Your task to perform on an android device: change keyboard looks Image 0: 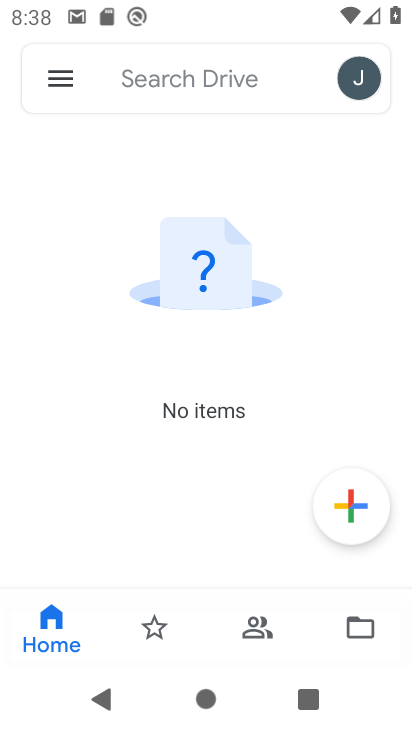
Step 0: press back button
Your task to perform on an android device: change keyboard looks Image 1: 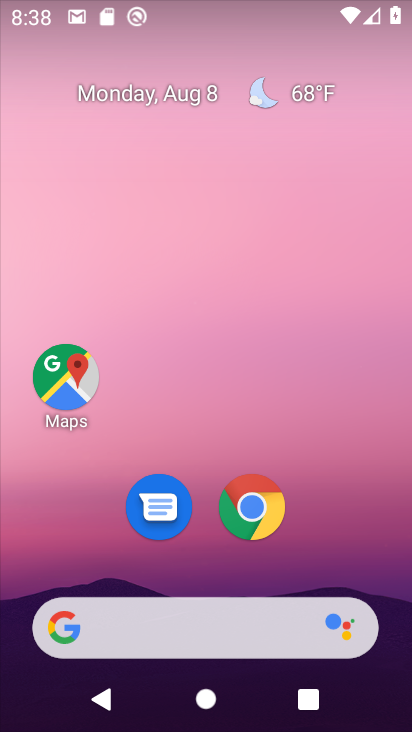
Step 1: drag from (214, 576) to (220, 240)
Your task to perform on an android device: change keyboard looks Image 2: 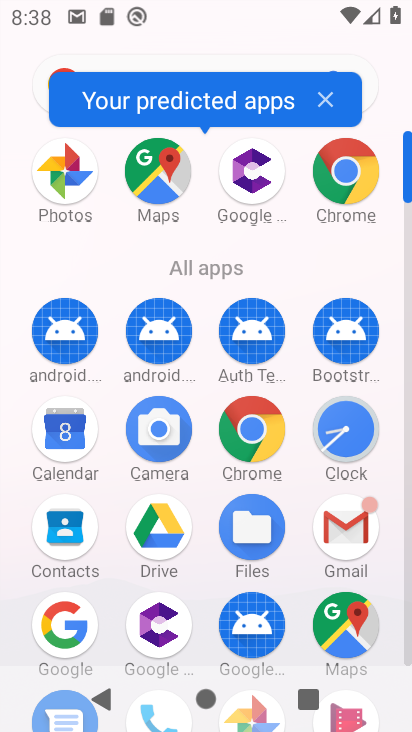
Step 2: drag from (299, 593) to (263, 71)
Your task to perform on an android device: change keyboard looks Image 3: 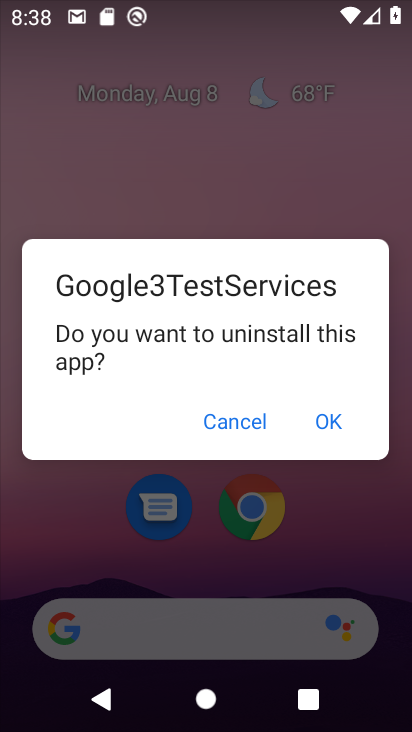
Step 3: click (293, 431)
Your task to perform on an android device: change keyboard looks Image 4: 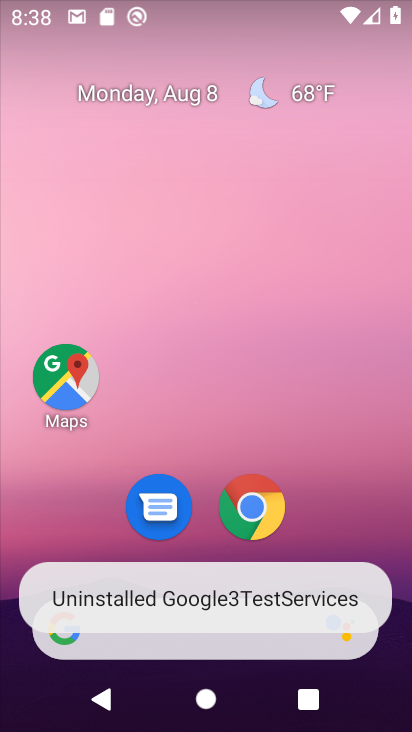
Step 4: drag from (201, 560) to (107, 1)
Your task to perform on an android device: change keyboard looks Image 5: 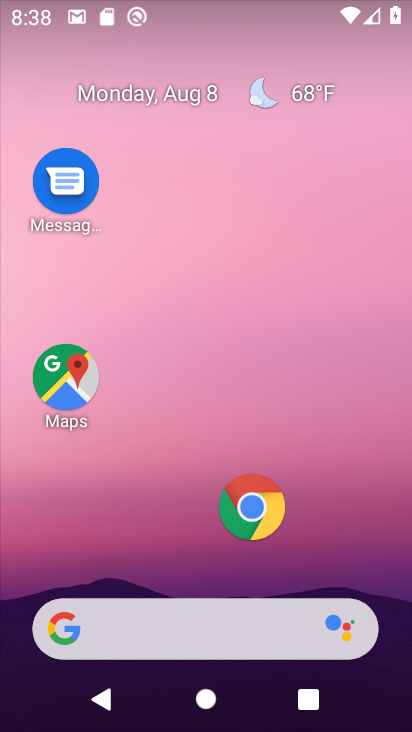
Step 5: drag from (255, 576) to (266, 157)
Your task to perform on an android device: change keyboard looks Image 6: 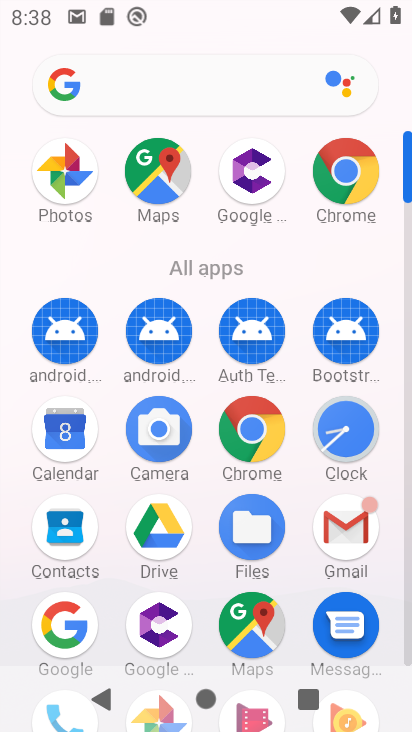
Step 6: drag from (199, 570) to (188, 159)
Your task to perform on an android device: change keyboard looks Image 7: 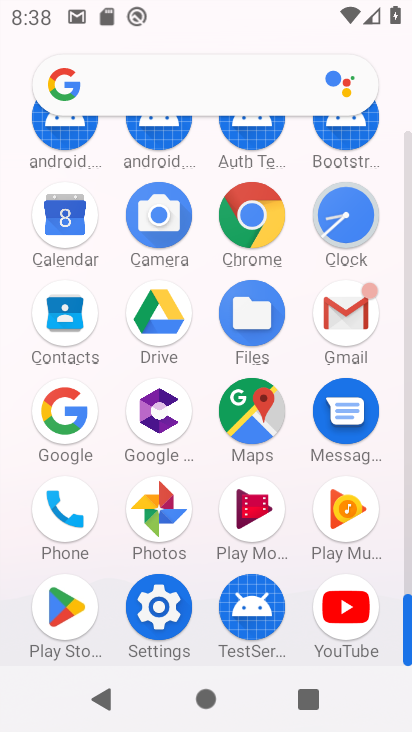
Step 7: click (128, 633)
Your task to perform on an android device: change keyboard looks Image 8: 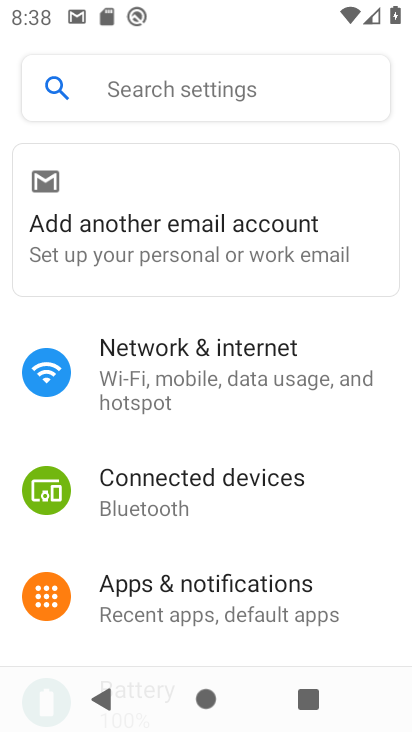
Step 8: drag from (273, 547) to (261, 47)
Your task to perform on an android device: change keyboard looks Image 9: 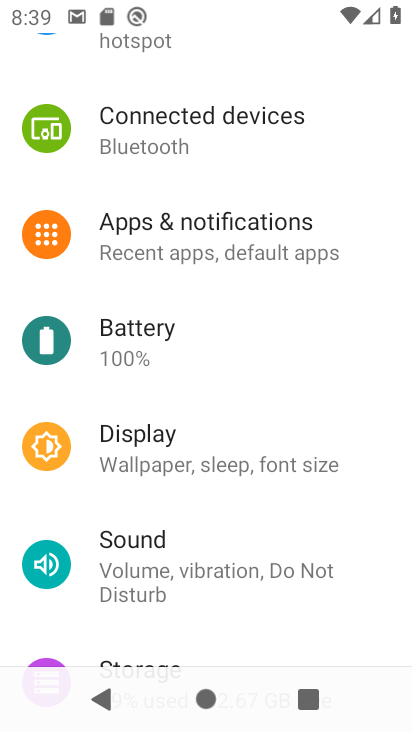
Step 9: drag from (288, 597) to (187, 7)
Your task to perform on an android device: change keyboard looks Image 10: 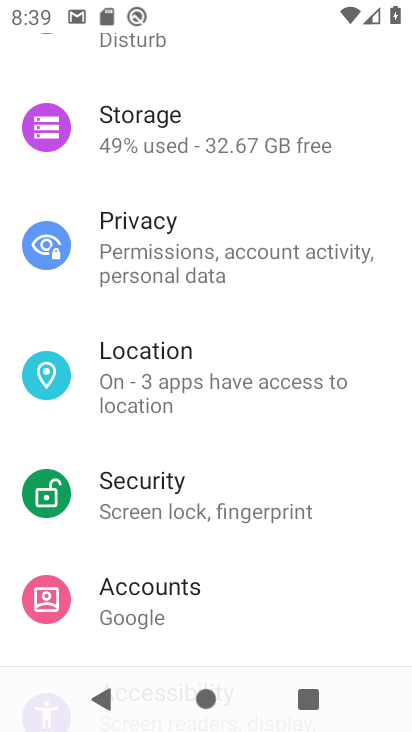
Step 10: drag from (214, 560) to (106, 55)
Your task to perform on an android device: change keyboard looks Image 11: 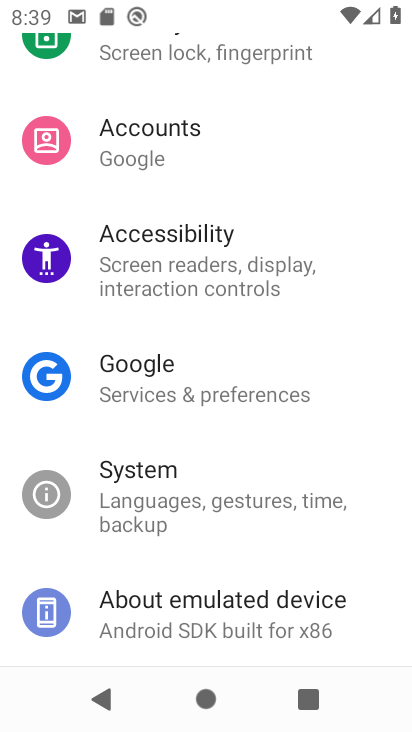
Step 11: click (158, 493)
Your task to perform on an android device: change keyboard looks Image 12: 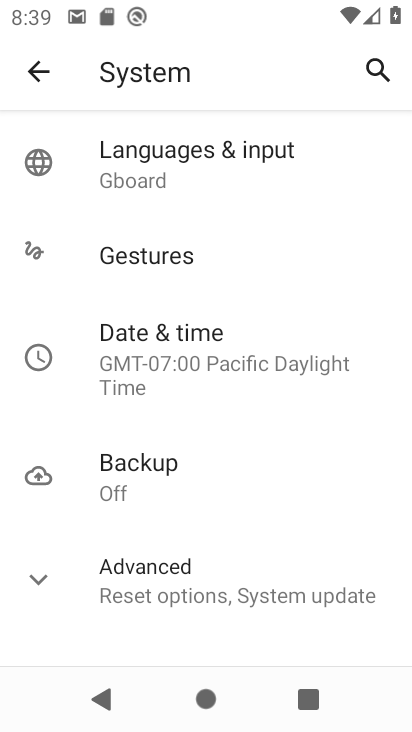
Step 12: click (177, 175)
Your task to perform on an android device: change keyboard looks Image 13: 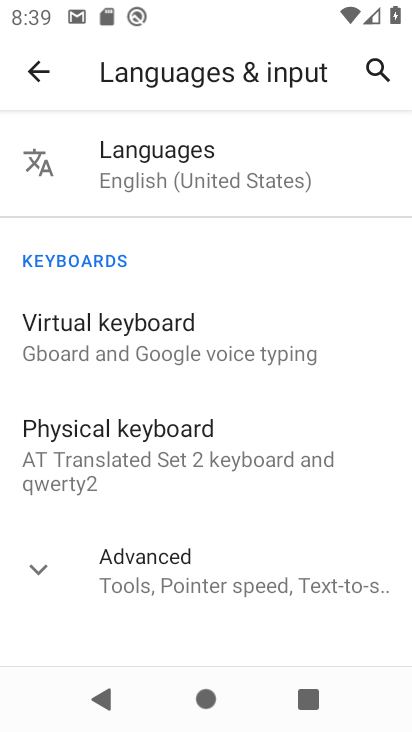
Step 13: click (170, 338)
Your task to perform on an android device: change keyboard looks Image 14: 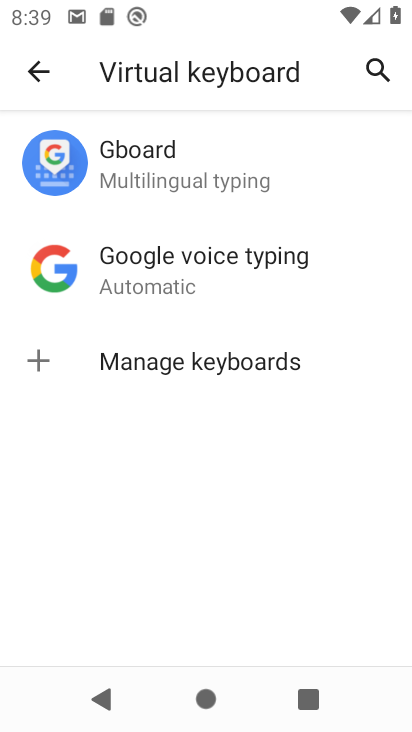
Step 14: click (185, 136)
Your task to perform on an android device: change keyboard looks Image 15: 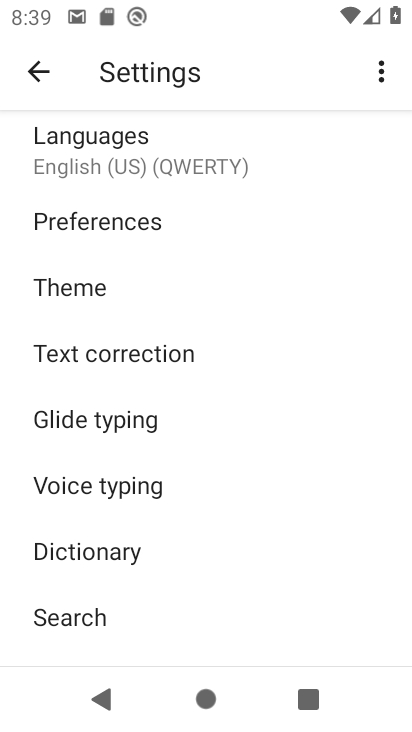
Step 15: click (87, 284)
Your task to perform on an android device: change keyboard looks Image 16: 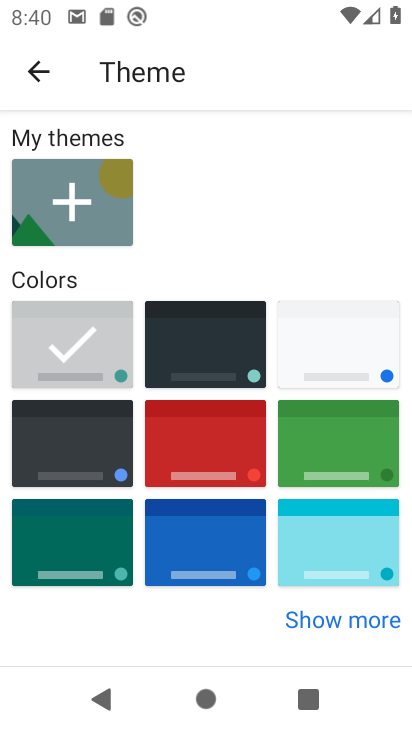
Step 16: click (190, 393)
Your task to perform on an android device: change keyboard looks Image 17: 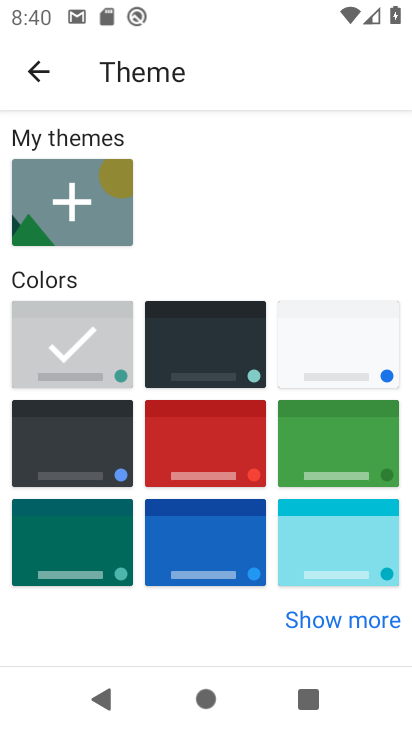
Step 17: click (199, 323)
Your task to perform on an android device: change keyboard looks Image 18: 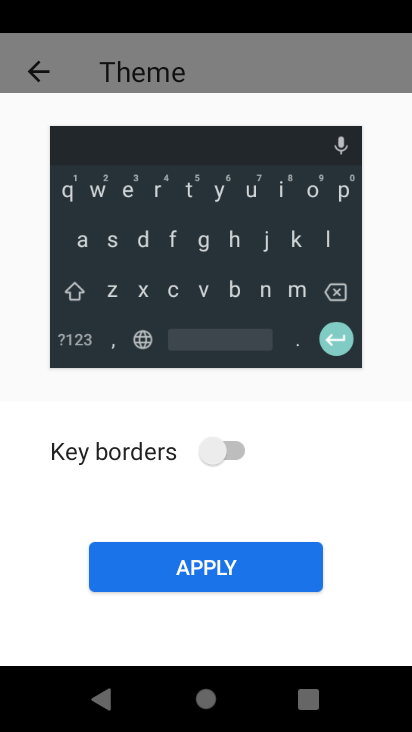
Step 18: click (210, 558)
Your task to perform on an android device: change keyboard looks Image 19: 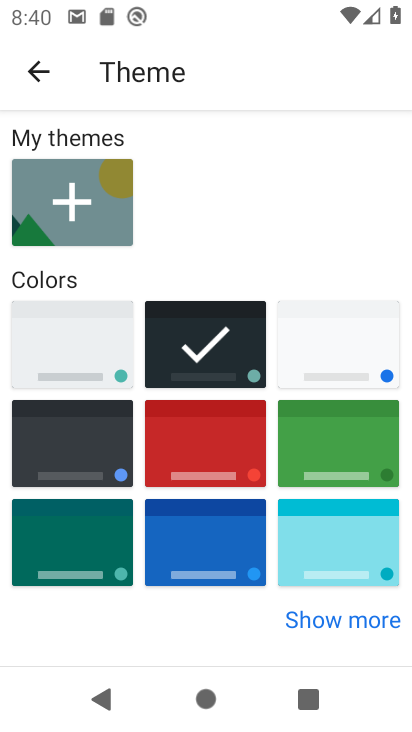
Step 19: task complete